Your task to perform on an android device: find photos in the google photos app Image 0: 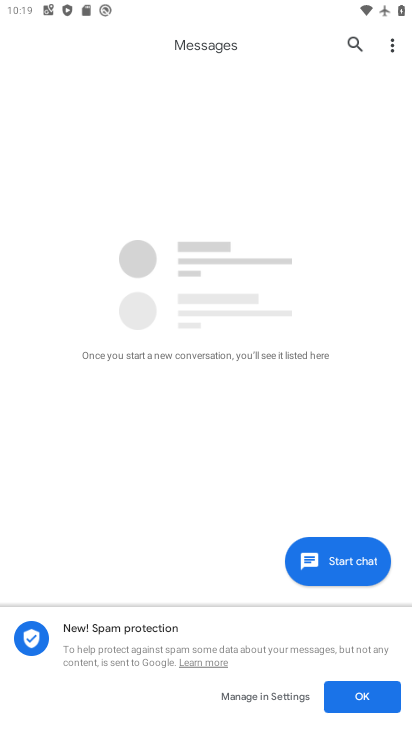
Step 0: press home button
Your task to perform on an android device: find photos in the google photos app Image 1: 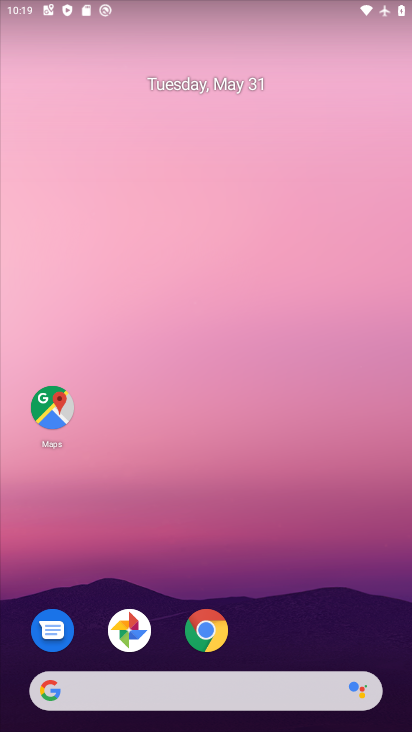
Step 1: drag from (251, 599) to (245, 184)
Your task to perform on an android device: find photos in the google photos app Image 2: 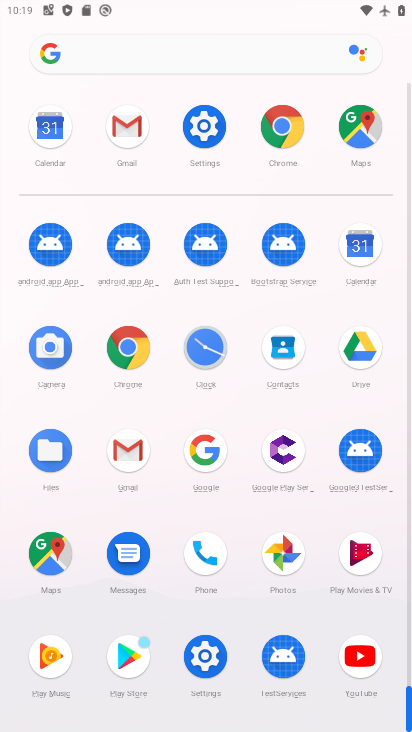
Step 2: click (287, 550)
Your task to perform on an android device: find photos in the google photos app Image 3: 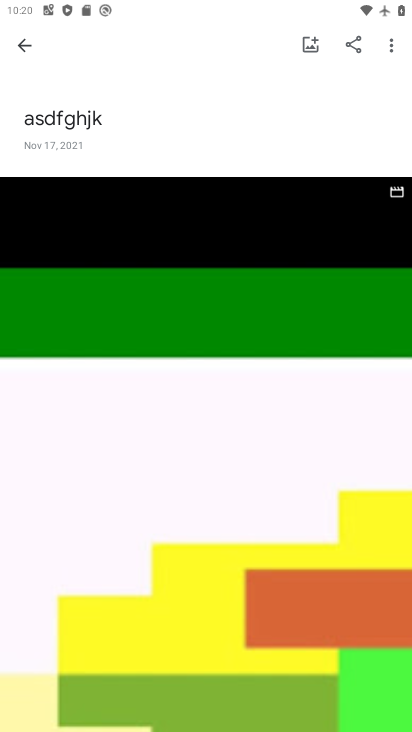
Step 3: task complete